Your task to perform on an android device: Open Android settings Image 0: 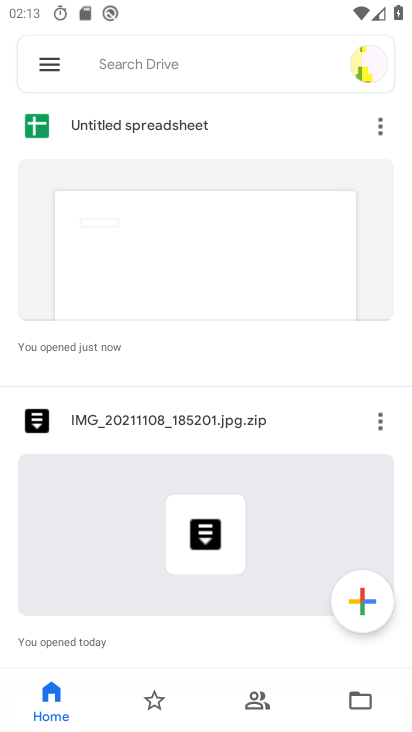
Step 0: press home button
Your task to perform on an android device: Open Android settings Image 1: 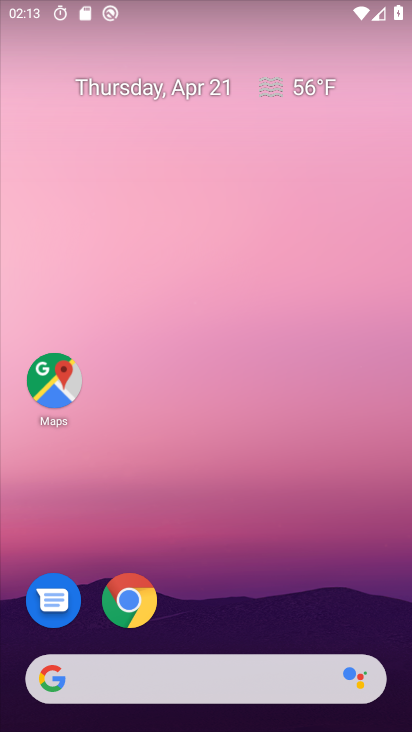
Step 1: drag from (282, 600) to (277, 155)
Your task to perform on an android device: Open Android settings Image 2: 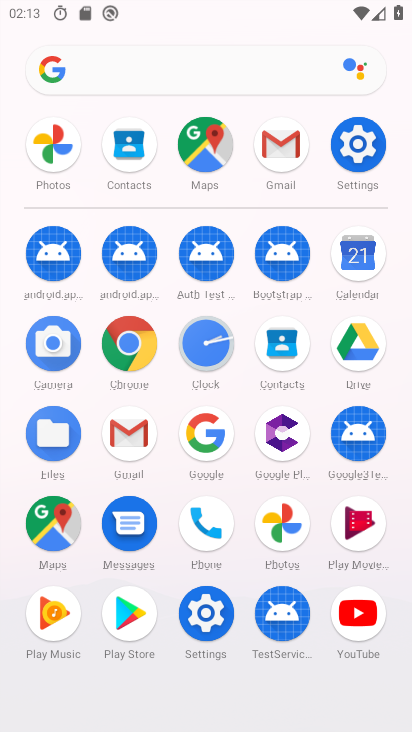
Step 2: click (359, 140)
Your task to perform on an android device: Open Android settings Image 3: 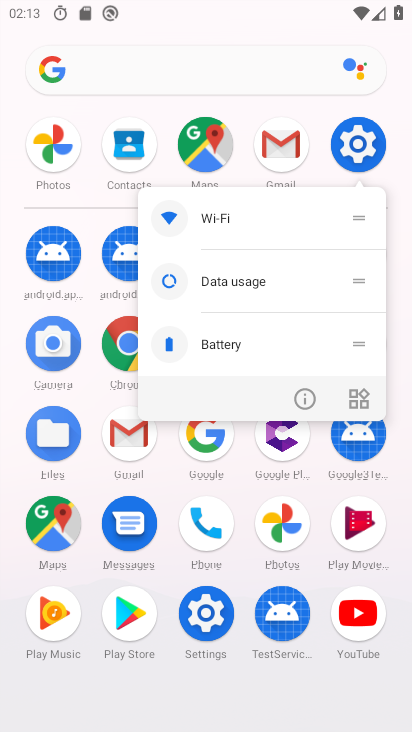
Step 3: click (359, 140)
Your task to perform on an android device: Open Android settings Image 4: 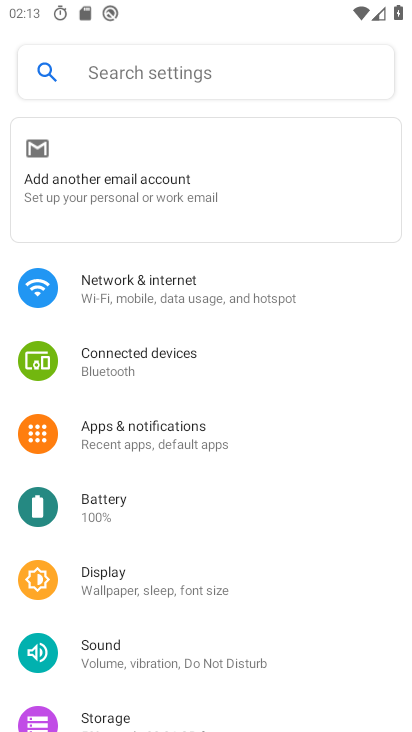
Step 4: task complete